Your task to perform on an android device: turn off location history Image 0: 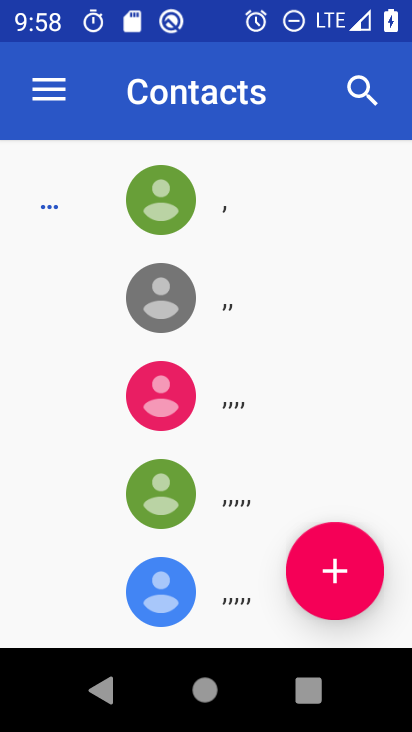
Step 0: drag from (186, 571) to (207, 226)
Your task to perform on an android device: turn off location history Image 1: 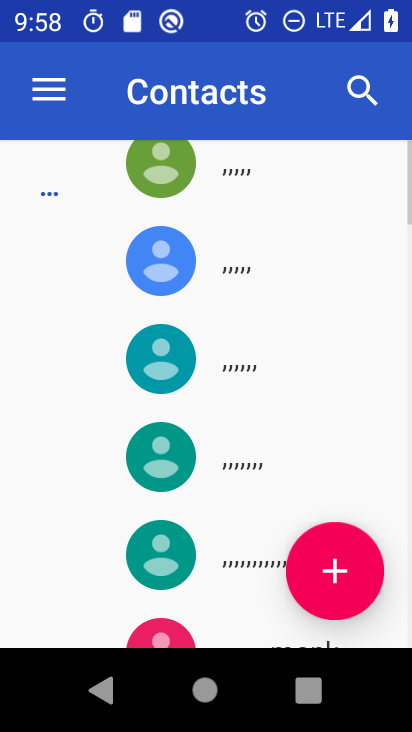
Step 1: press home button
Your task to perform on an android device: turn off location history Image 2: 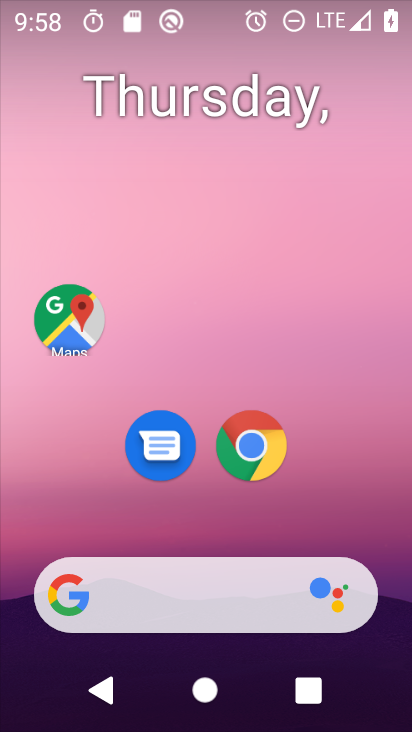
Step 2: drag from (220, 541) to (281, 14)
Your task to perform on an android device: turn off location history Image 3: 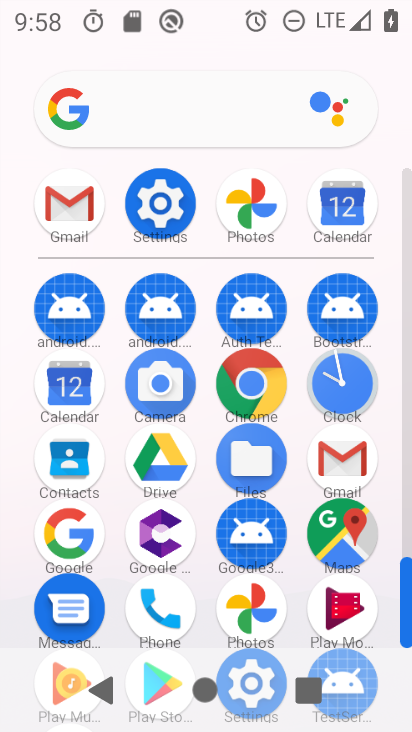
Step 3: click (152, 197)
Your task to perform on an android device: turn off location history Image 4: 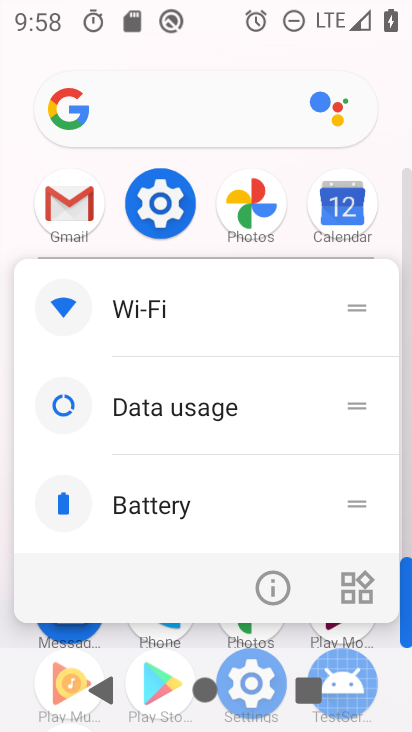
Step 4: click (279, 594)
Your task to perform on an android device: turn off location history Image 5: 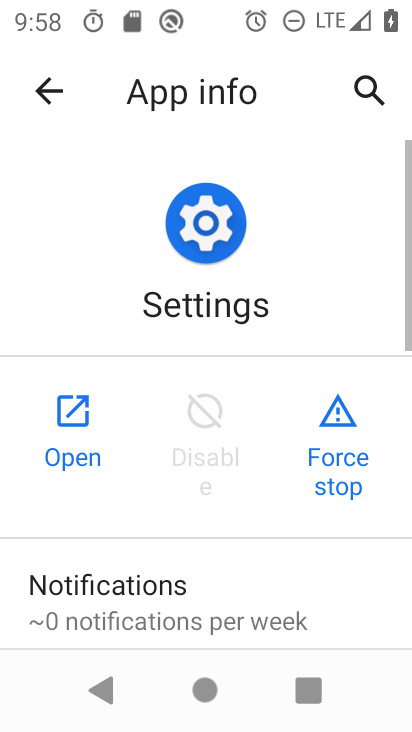
Step 5: click (92, 420)
Your task to perform on an android device: turn off location history Image 6: 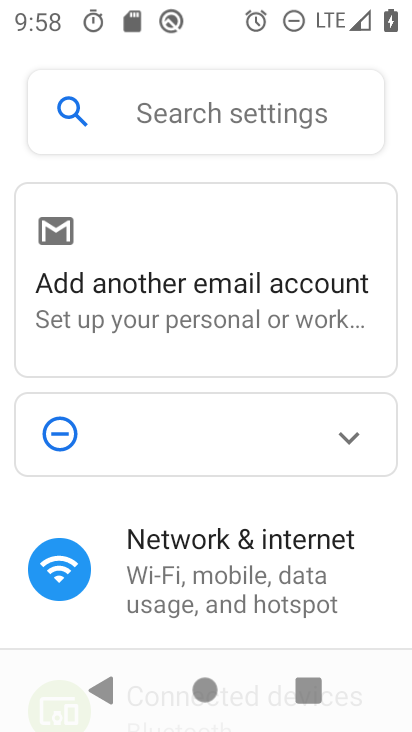
Step 6: drag from (212, 549) to (260, 240)
Your task to perform on an android device: turn off location history Image 7: 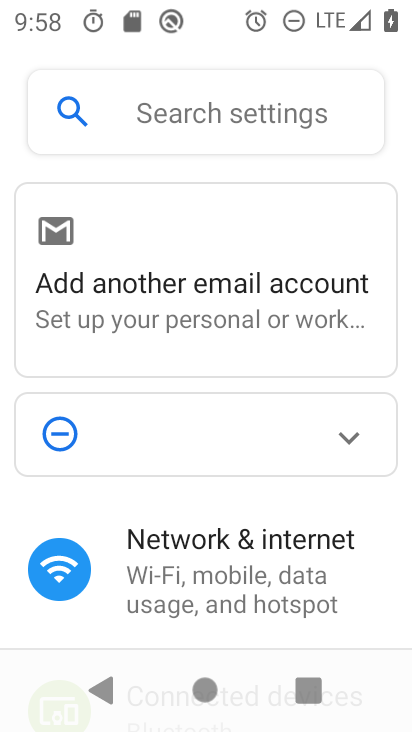
Step 7: drag from (225, 565) to (292, 163)
Your task to perform on an android device: turn off location history Image 8: 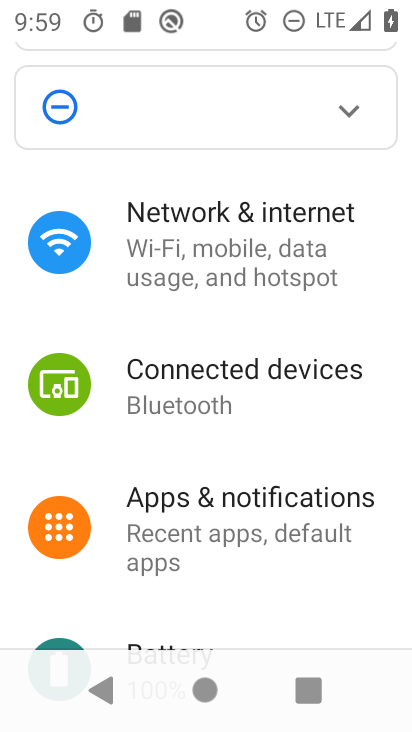
Step 8: drag from (222, 566) to (288, 124)
Your task to perform on an android device: turn off location history Image 9: 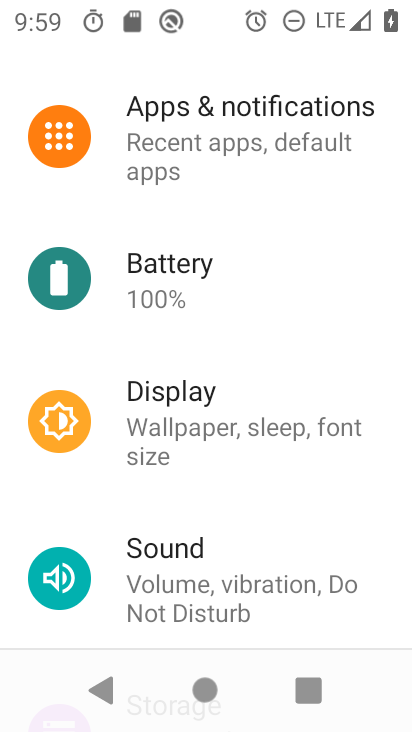
Step 9: drag from (215, 466) to (229, 197)
Your task to perform on an android device: turn off location history Image 10: 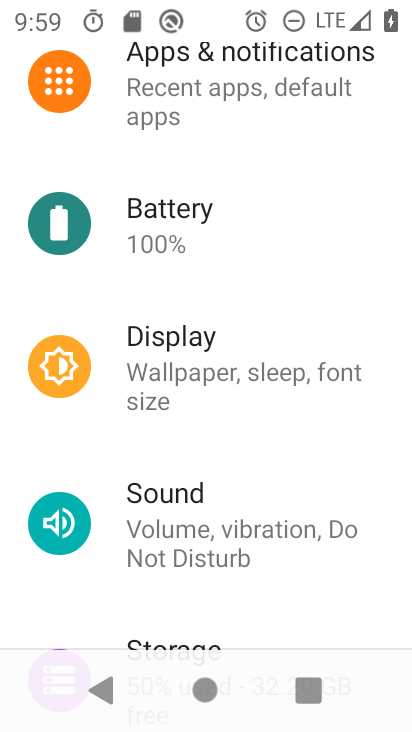
Step 10: drag from (179, 623) to (265, 149)
Your task to perform on an android device: turn off location history Image 11: 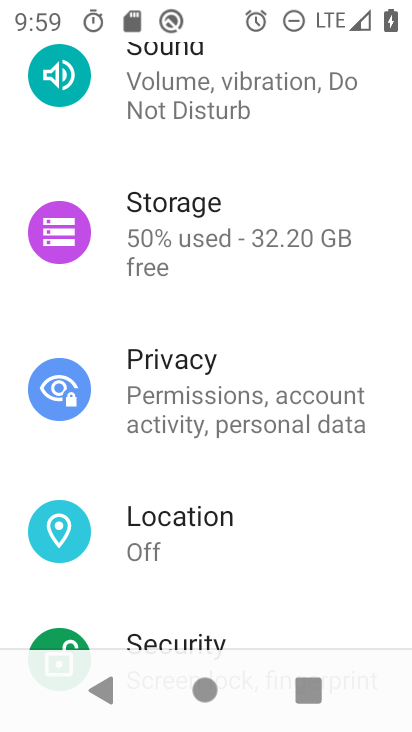
Step 11: click (188, 537)
Your task to perform on an android device: turn off location history Image 12: 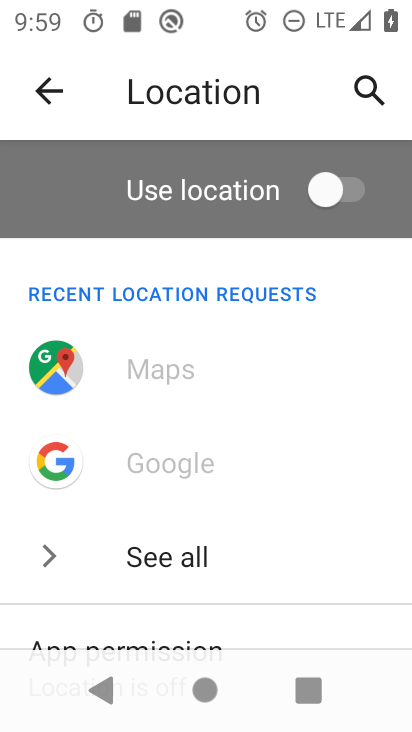
Step 12: drag from (196, 577) to (278, 185)
Your task to perform on an android device: turn off location history Image 13: 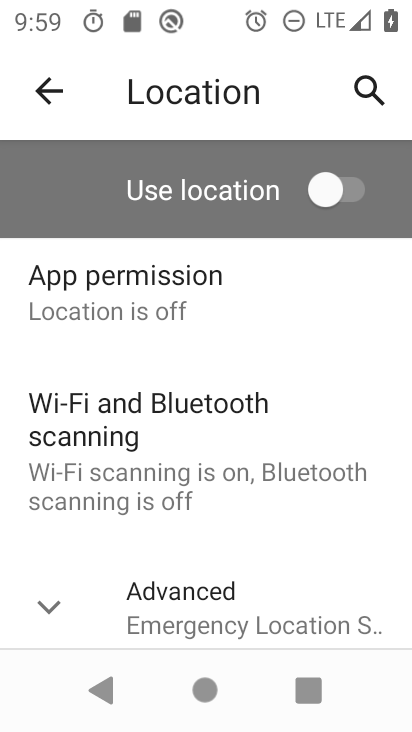
Step 13: click (176, 606)
Your task to perform on an android device: turn off location history Image 14: 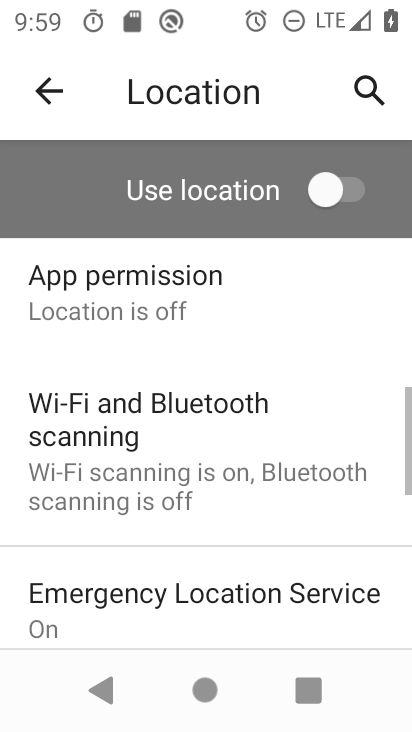
Step 14: drag from (218, 593) to (260, 255)
Your task to perform on an android device: turn off location history Image 15: 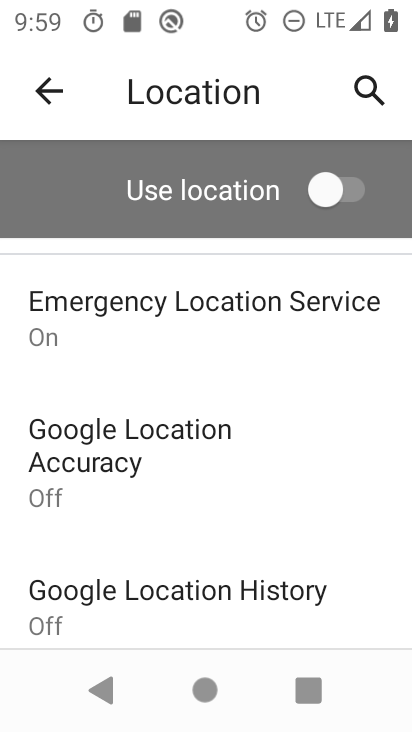
Step 15: click (172, 603)
Your task to perform on an android device: turn off location history Image 16: 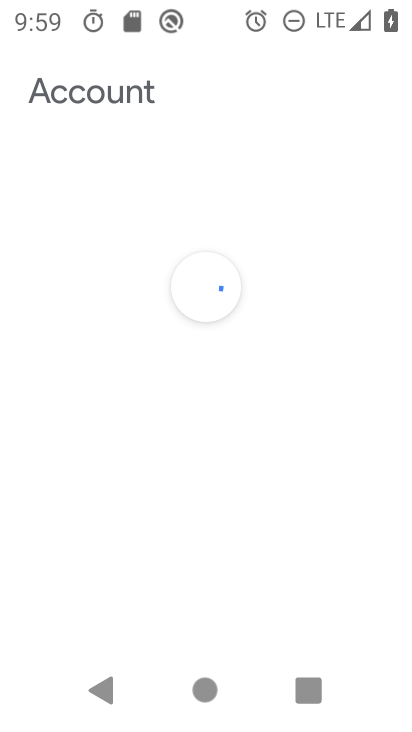
Step 16: task complete